Your task to perform on an android device: install app "LiveIn - Share Your Moment" Image 0: 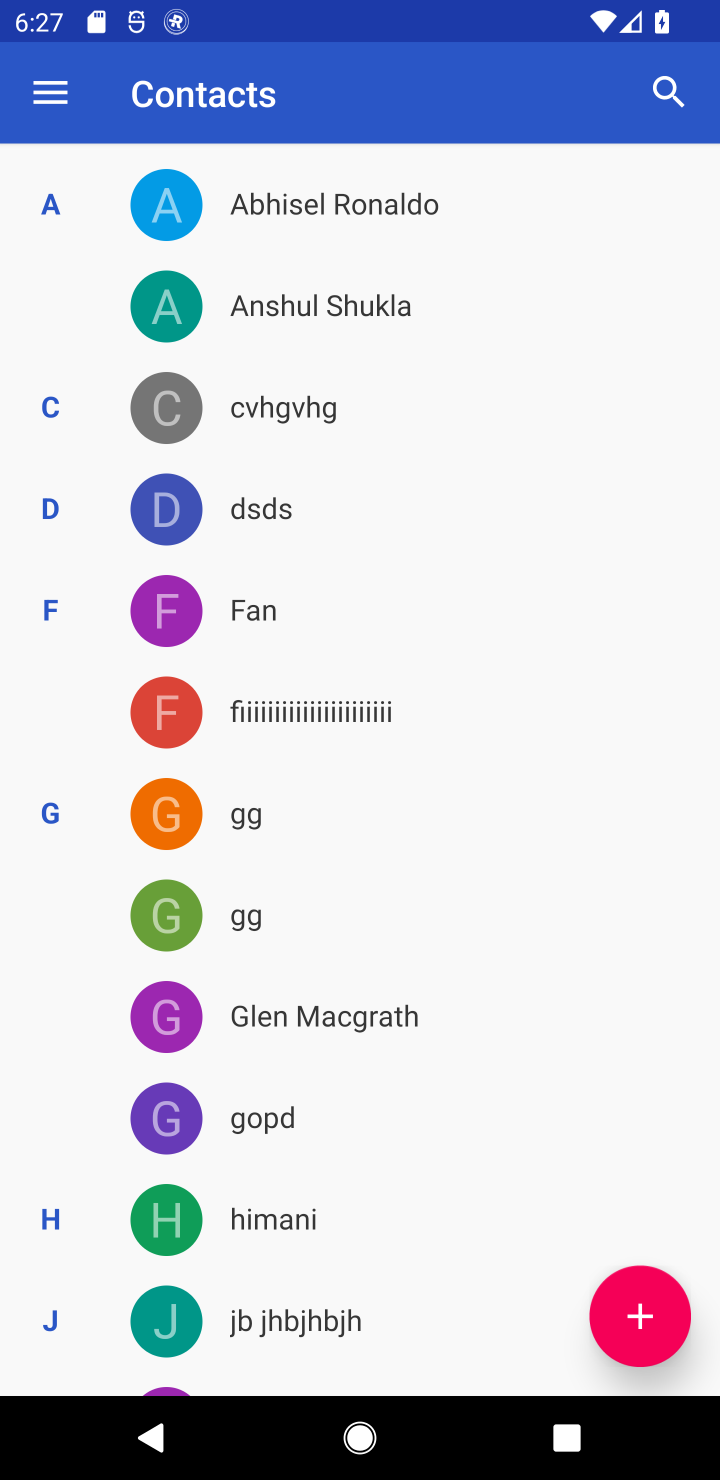
Step 0: press home button
Your task to perform on an android device: install app "LiveIn - Share Your Moment" Image 1: 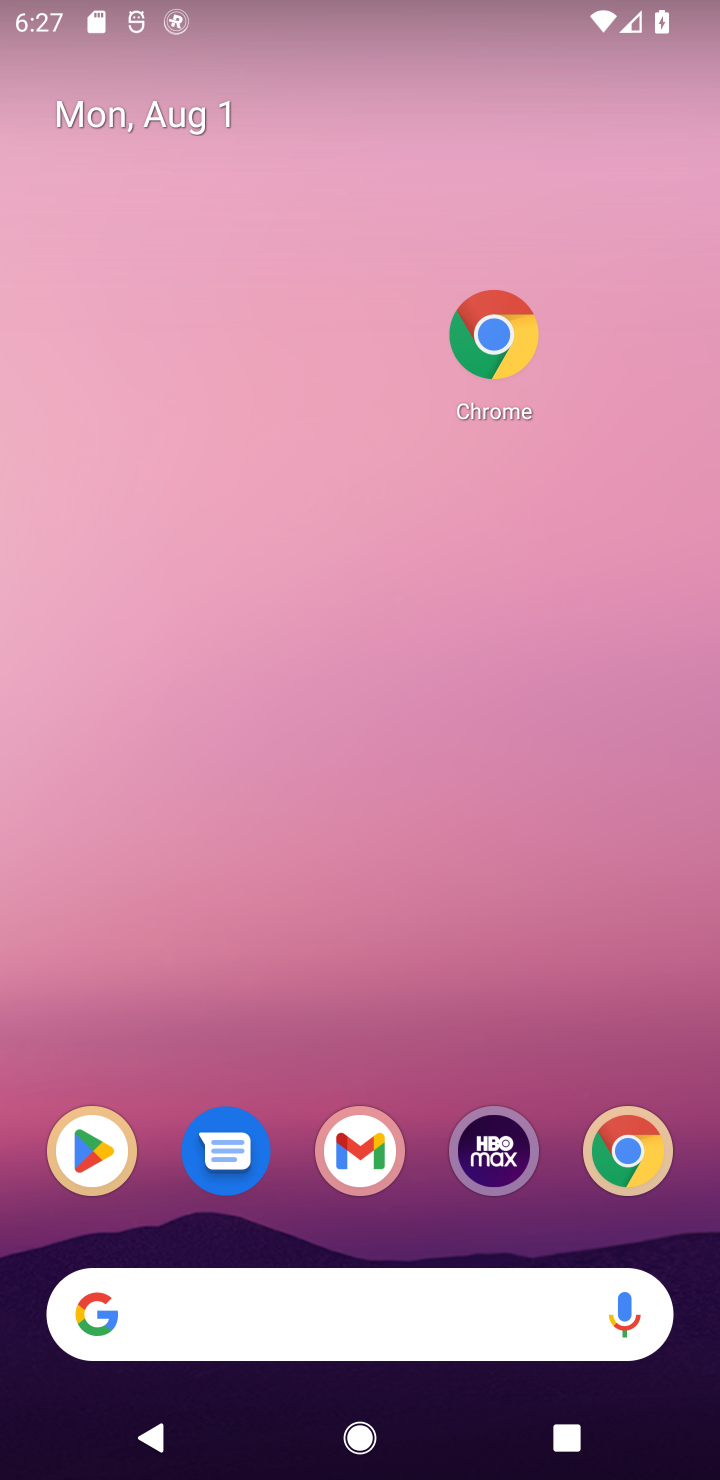
Step 1: click (80, 1150)
Your task to perform on an android device: install app "LiveIn - Share Your Moment" Image 2: 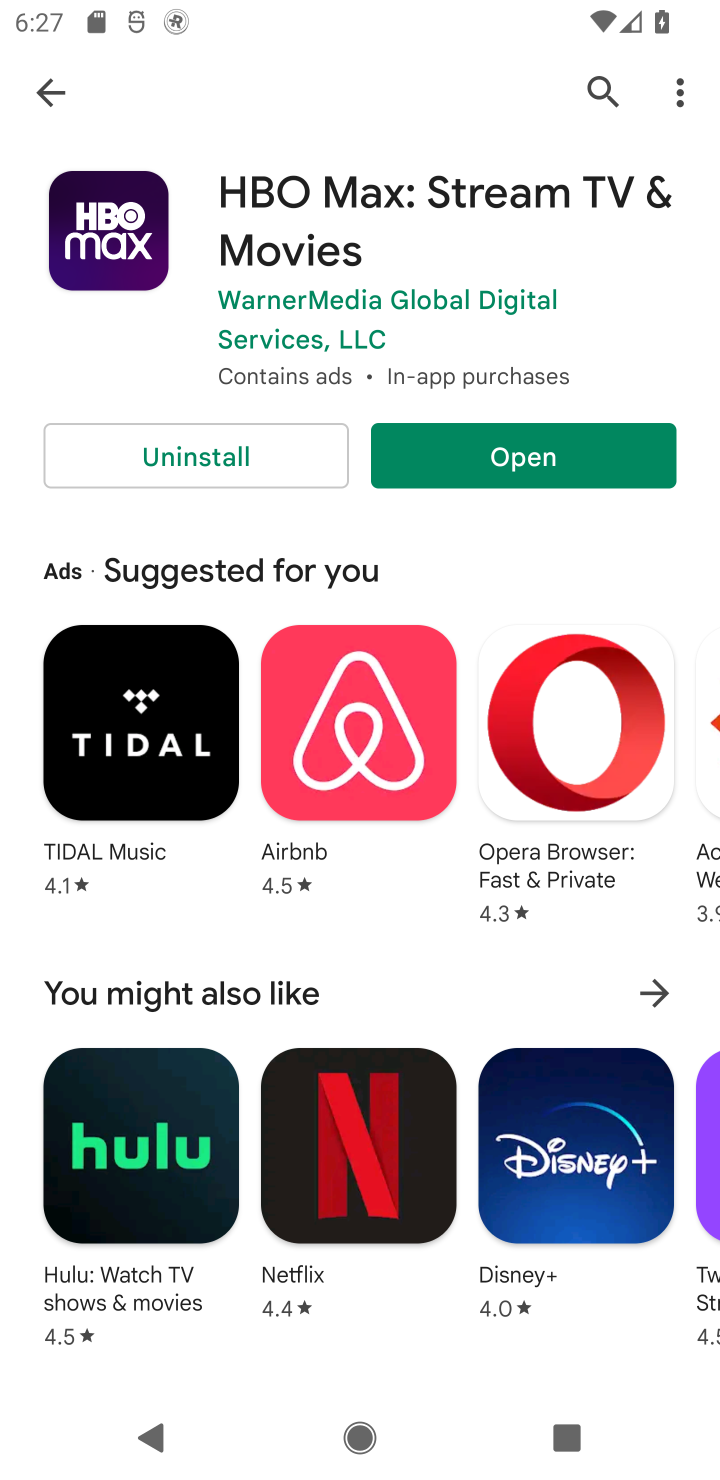
Step 2: click (608, 85)
Your task to perform on an android device: install app "LiveIn - Share Your Moment" Image 3: 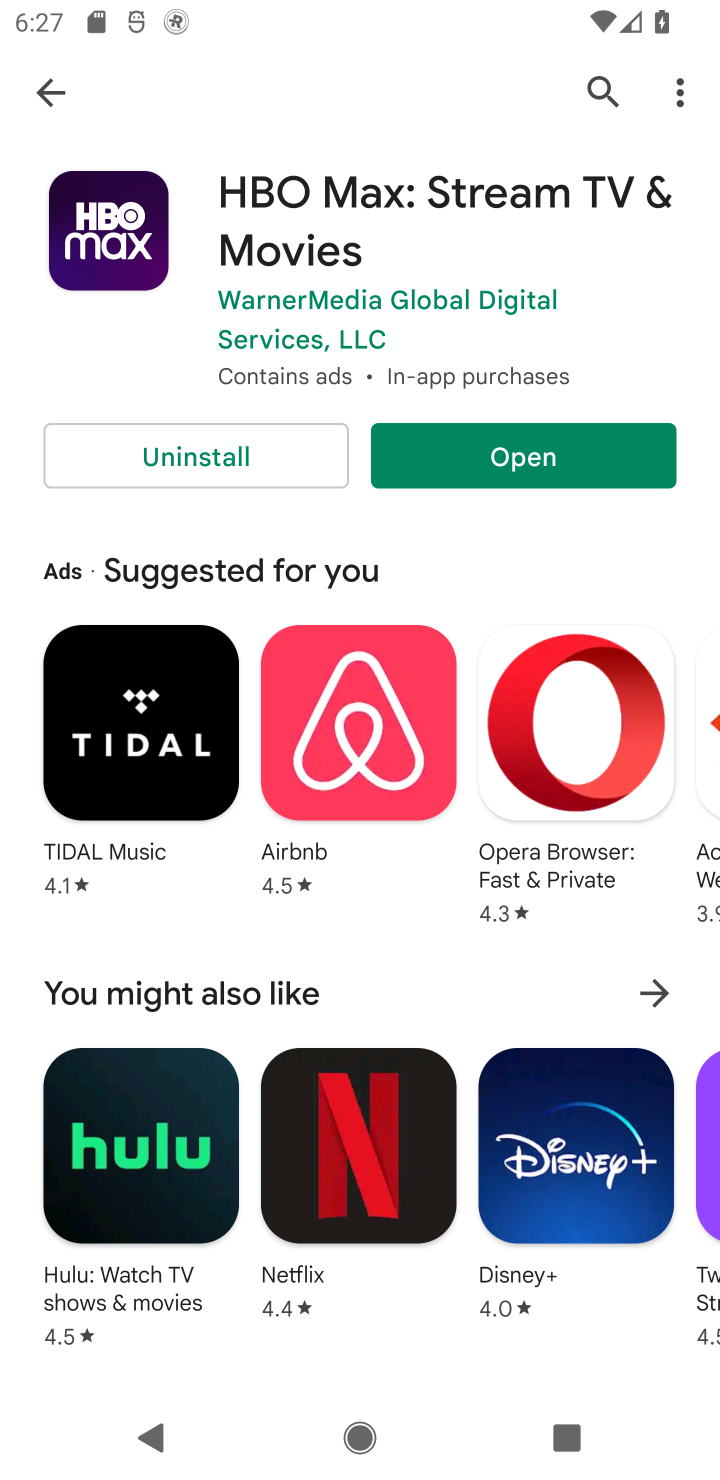
Step 3: click (601, 98)
Your task to perform on an android device: install app "LiveIn - Share Your Moment" Image 4: 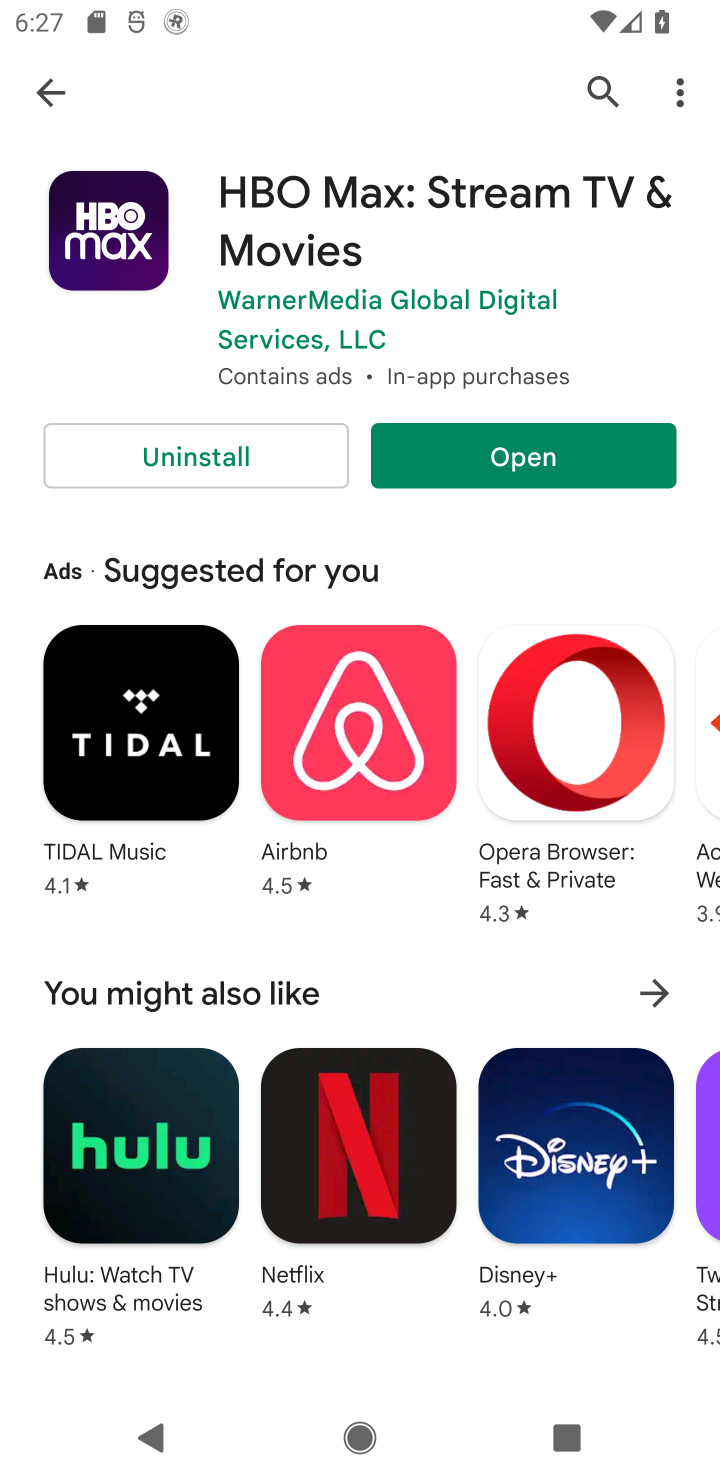
Step 4: click (601, 100)
Your task to perform on an android device: install app "LiveIn - Share Your Moment" Image 5: 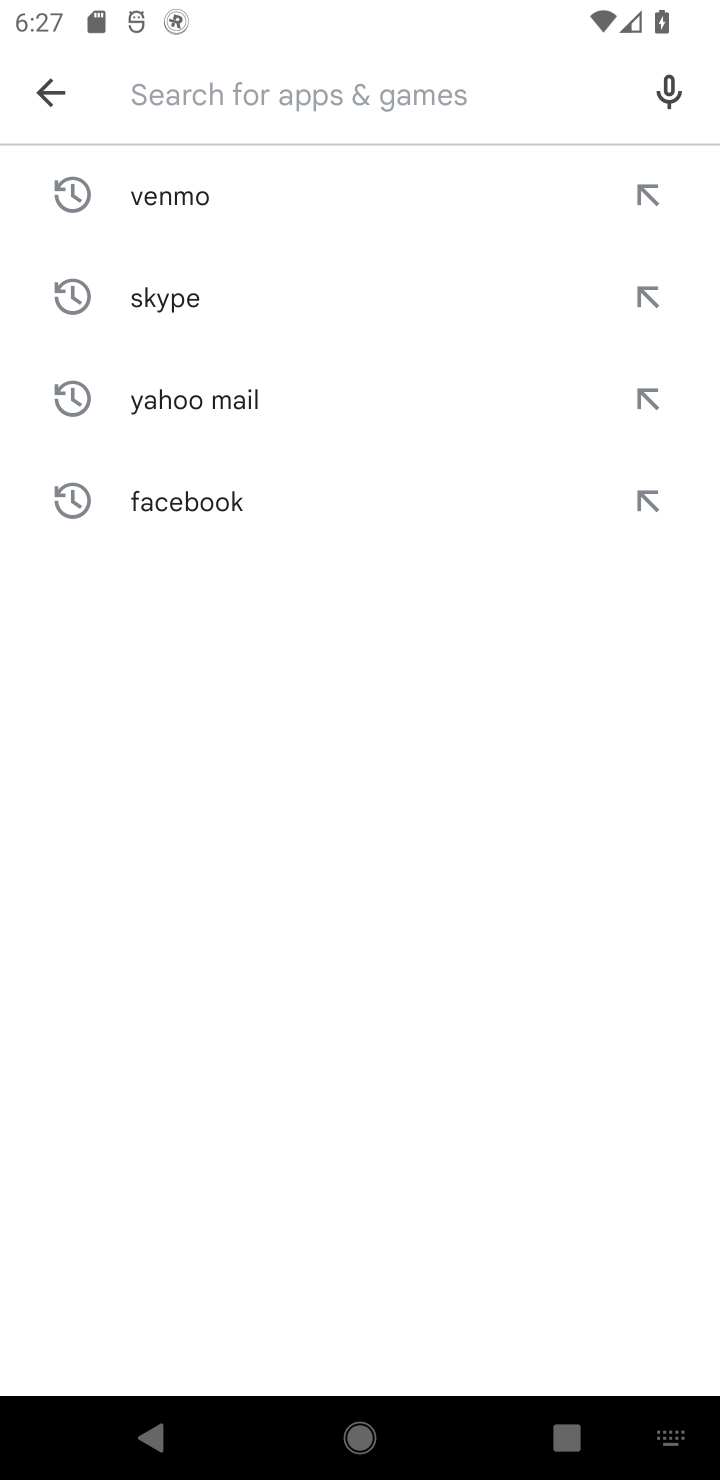
Step 5: type "LiveIn - Share Your Moment"
Your task to perform on an android device: install app "LiveIn - Share Your Moment" Image 6: 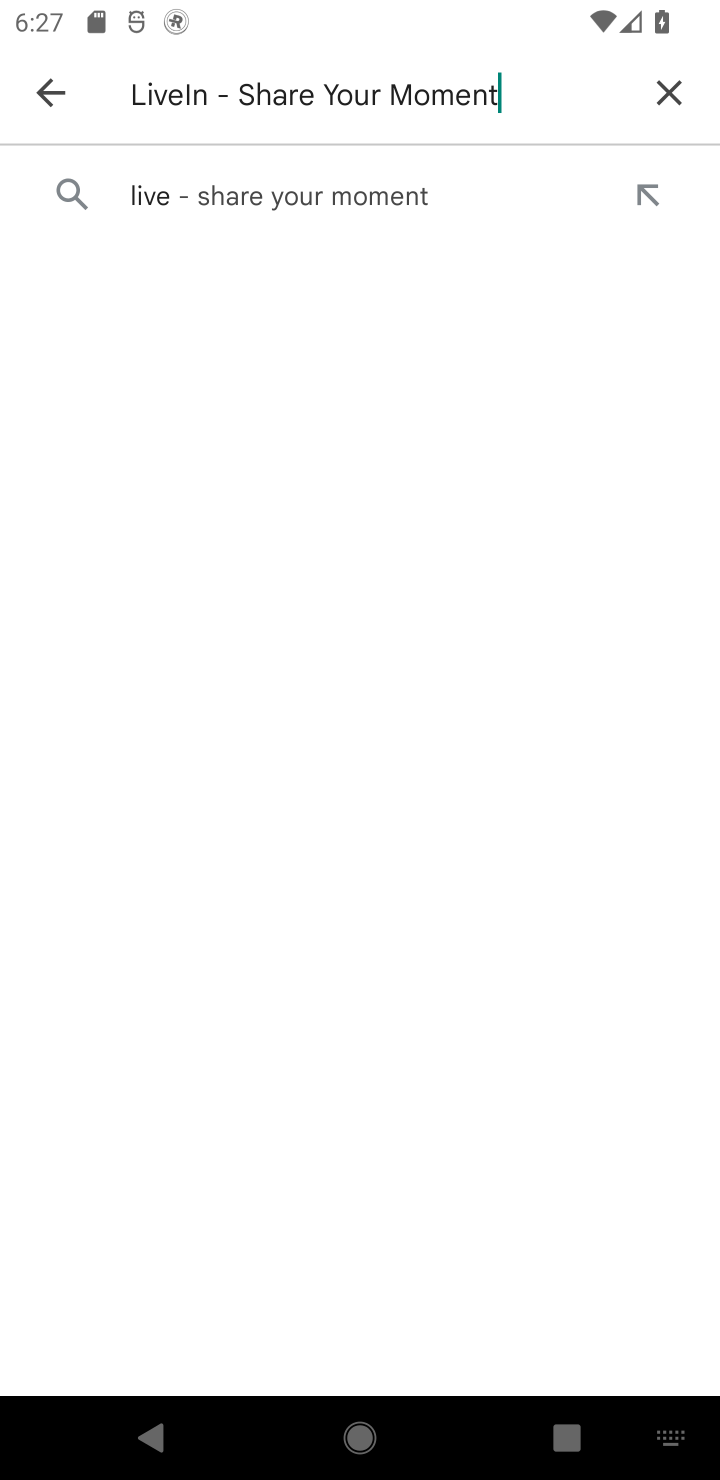
Step 6: click (277, 227)
Your task to perform on an android device: install app "LiveIn - Share Your Moment" Image 7: 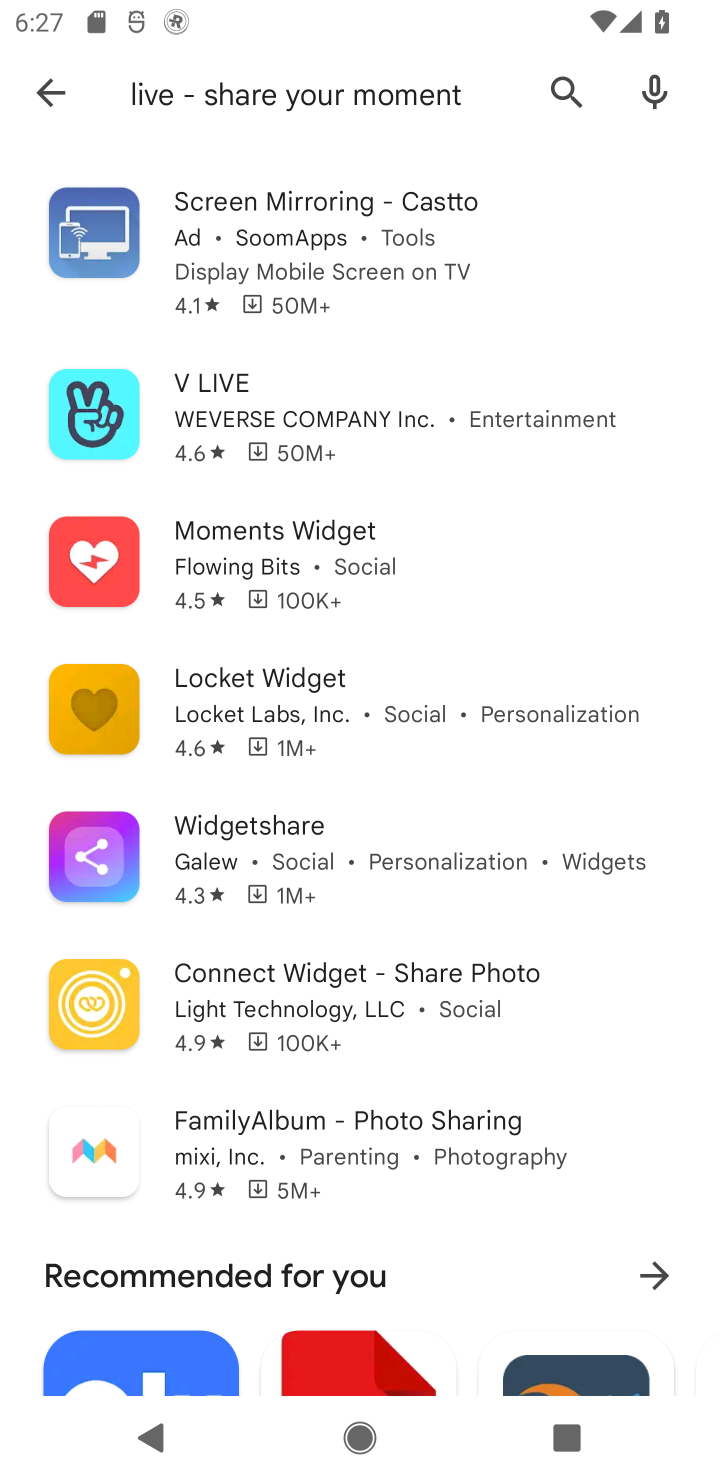
Step 7: task complete